Your task to perform on an android device: snooze an email in the gmail app Image 0: 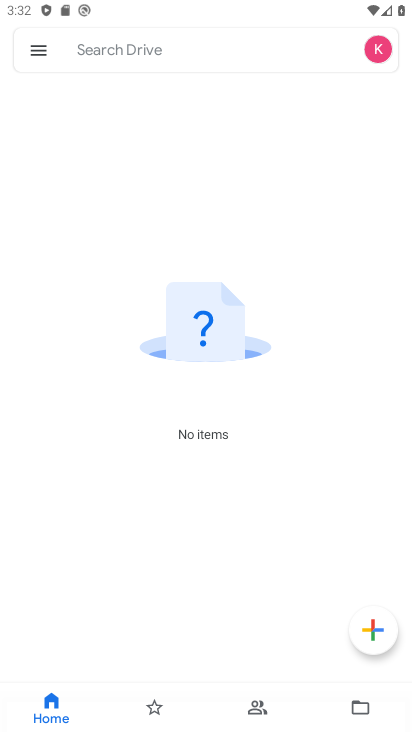
Step 0: press home button
Your task to perform on an android device: snooze an email in the gmail app Image 1: 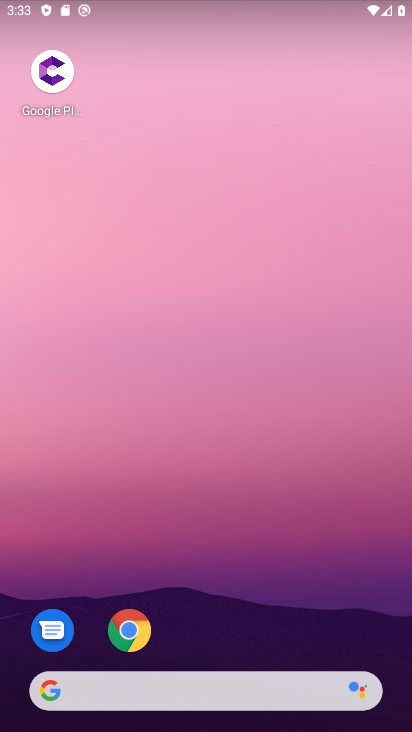
Step 1: drag from (262, 626) to (230, 285)
Your task to perform on an android device: snooze an email in the gmail app Image 2: 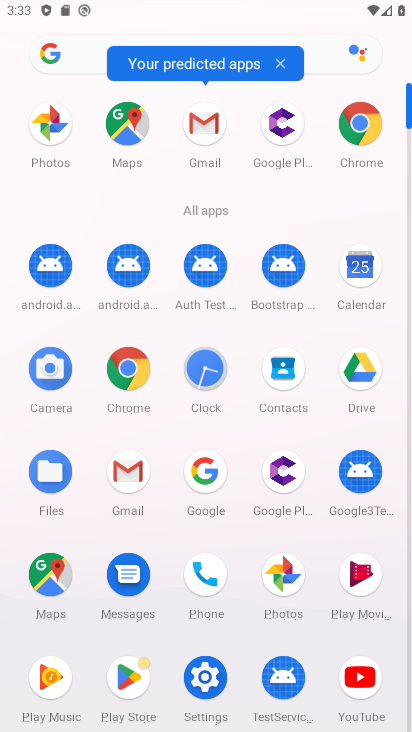
Step 2: click (213, 130)
Your task to perform on an android device: snooze an email in the gmail app Image 3: 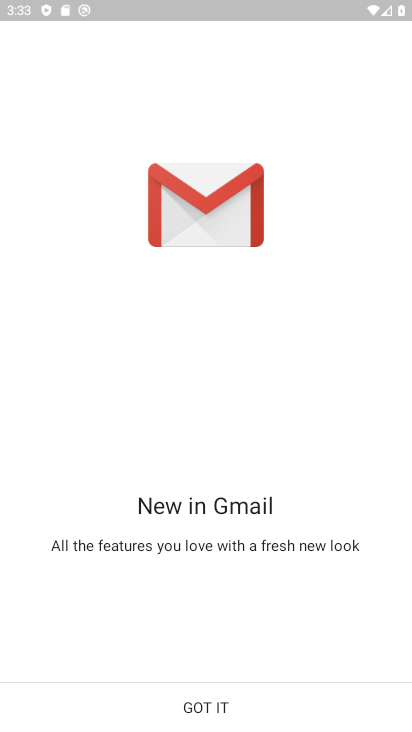
Step 3: click (219, 708)
Your task to perform on an android device: snooze an email in the gmail app Image 4: 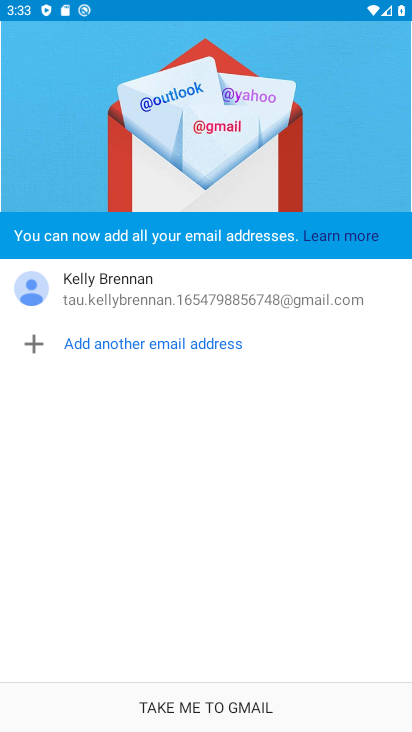
Step 4: click (269, 715)
Your task to perform on an android device: snooze an email in the gmail app Image 5: 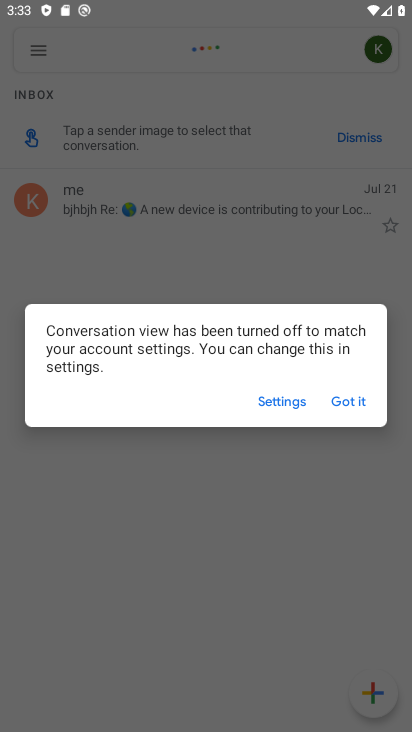
Step 5: click (357, 404)
Your task to perform on an android device: snooze an email in the gmail app Image 6: 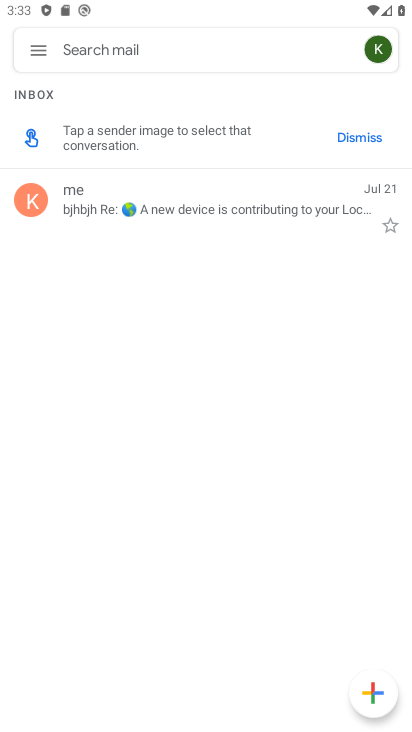
Step 6: click (277, 210)
Your task to perform on an android device: snooze an email in the gmail app Image 7: 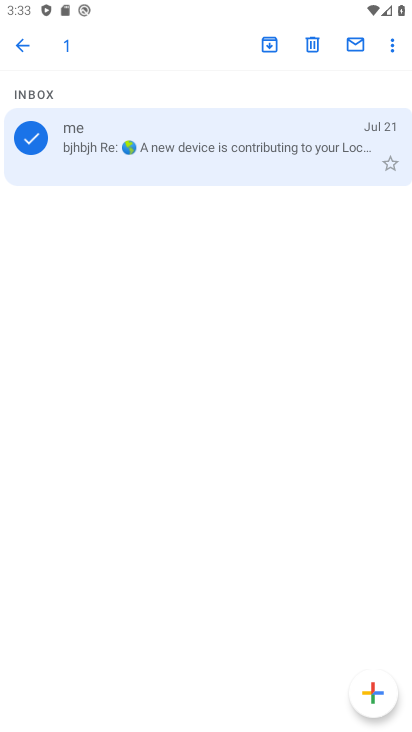
Step 7: click (391, 58)
Your task to perform on an android device: snooze an email in the gmail app Image 8: 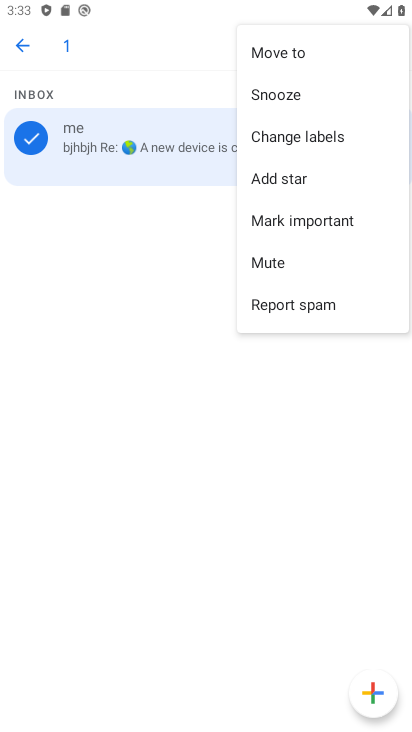
Step 8: click (314, 96)
Your task to perform on an android device: snooze an email in the gmail app Image 9: 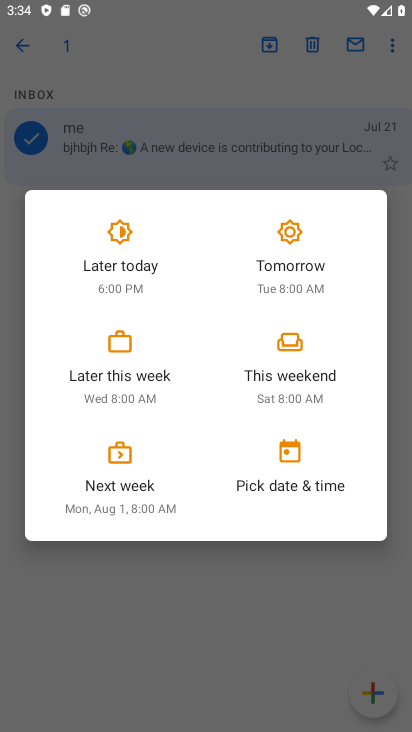
Step 9: click (278, 281)
Your task to perform on an android device: snooze an email in the gmail app Image 10: 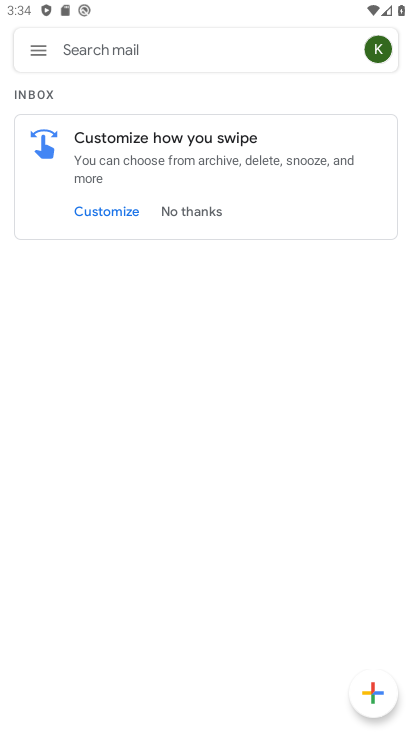
Step 10: task complete